Your task to perform on an android device: toggle priority inbox in the gmail app Image 0: 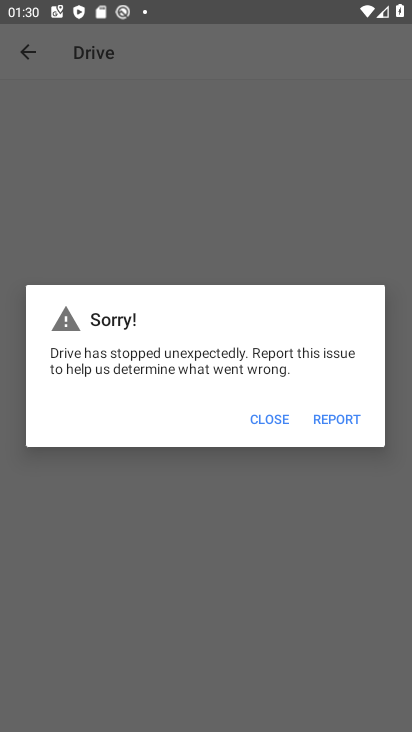
Step 0: press home button
Your task to perform on an android device: toggle priority inbox in the gmail app Image 1: 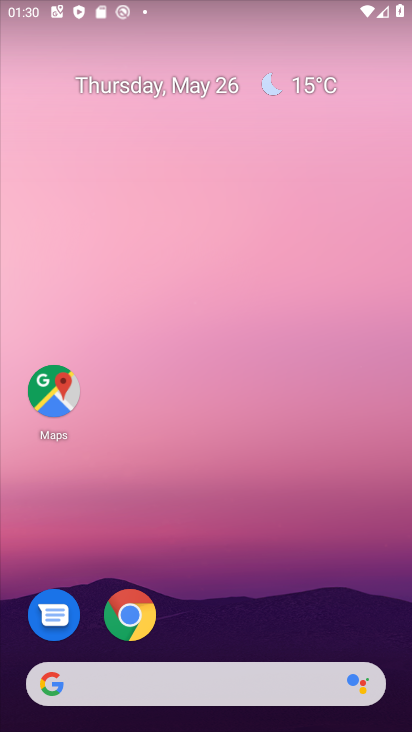
Step 1: drag from (221, 631) to (282, 83)
Your task to perform on an android device: toggle priority inbox in the gmail app Image 2: 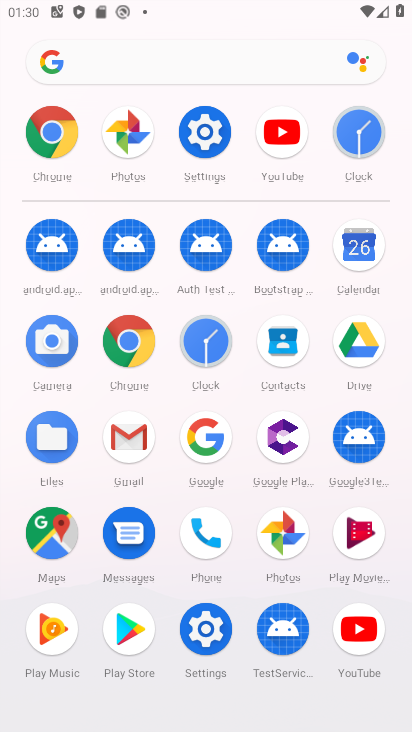
Step 2: click (120, 433)
Your task to perform on an android device: toggle priority inbox in the gmail app Image 3: 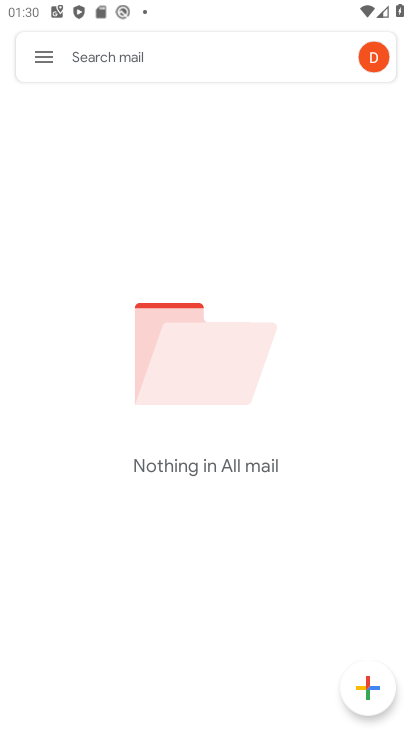
Step 3: click (33, 50)
Your task to perform on an android device: toggle priority inbox in the gmail app Image 4: 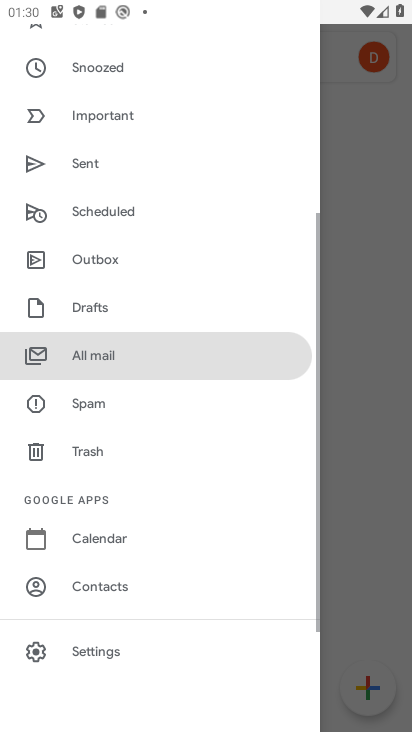
Step 4: click (132, 656)
Your task to perform on an android device: toggle priority inbox in the gmail app Image 5: 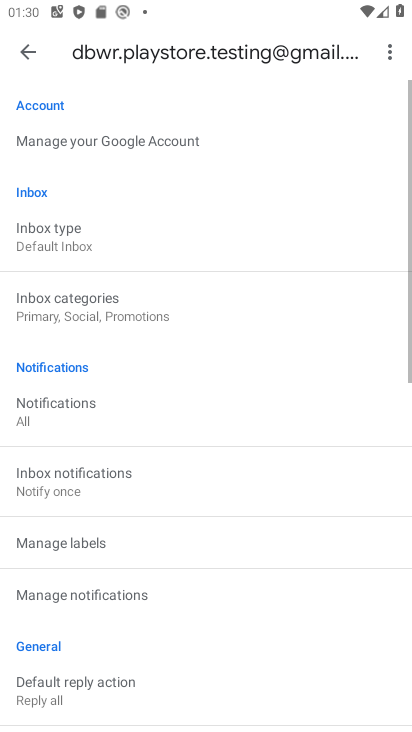
Step 5: click (88, 231)
Your task to perform on an android device: toggle priority inbox in the gmail app Image 6: 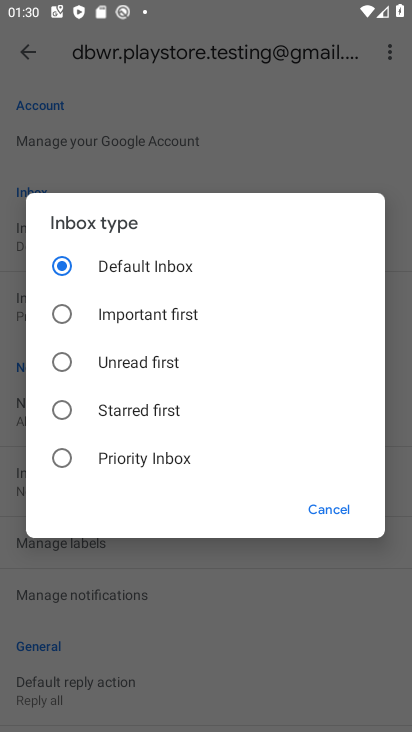
Step 6: click (64, 467)
Your task to perform on an android device: toggle priority inbox in the gmail app Image 7: 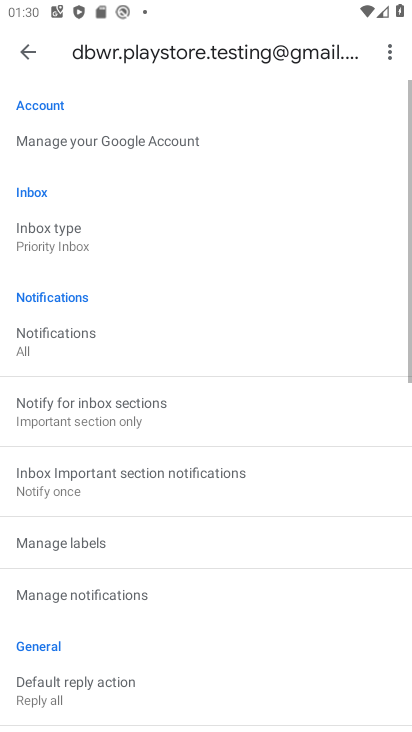
Step 7: task complete